Your task to perform on an android device: empty trash in the gmail app Image 0: 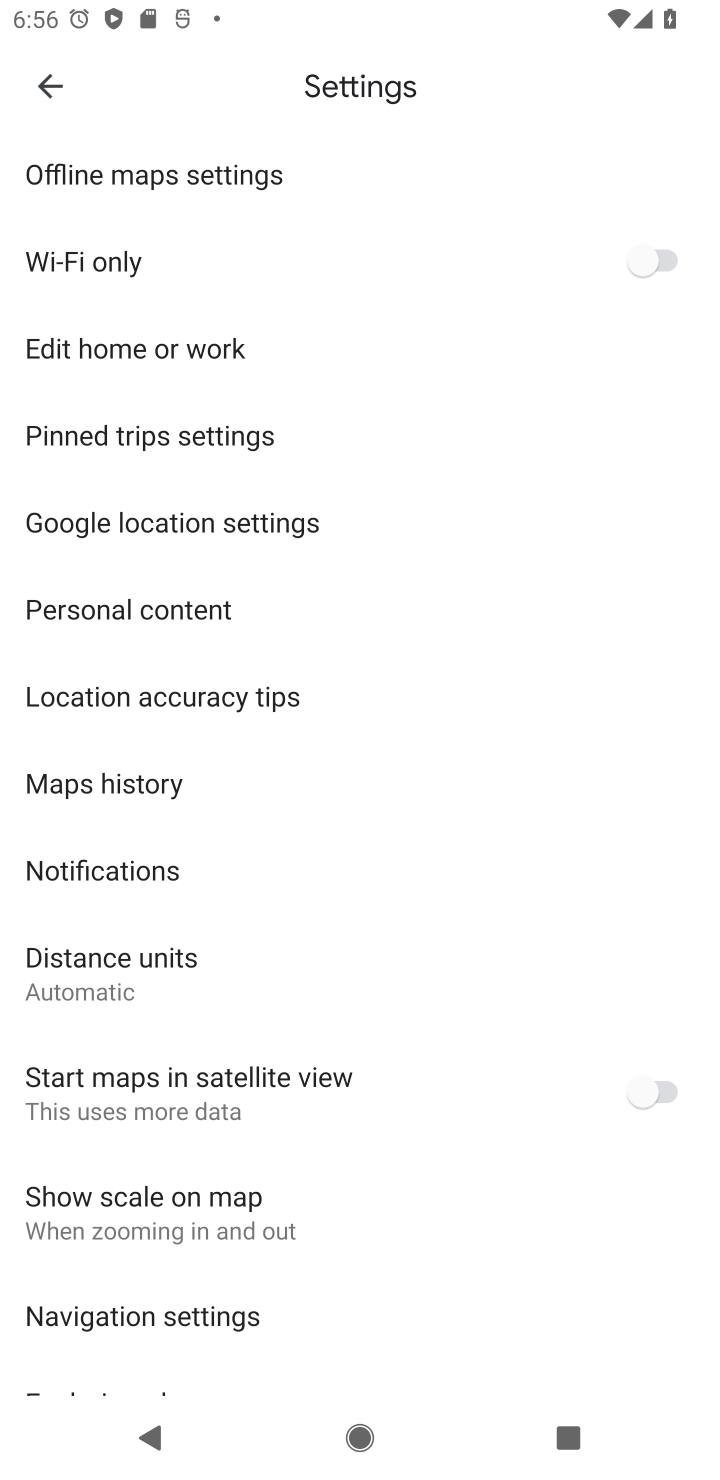
Step 0: press home button
Your task to perform on an android device: empty trash in the gmail app Image 1: 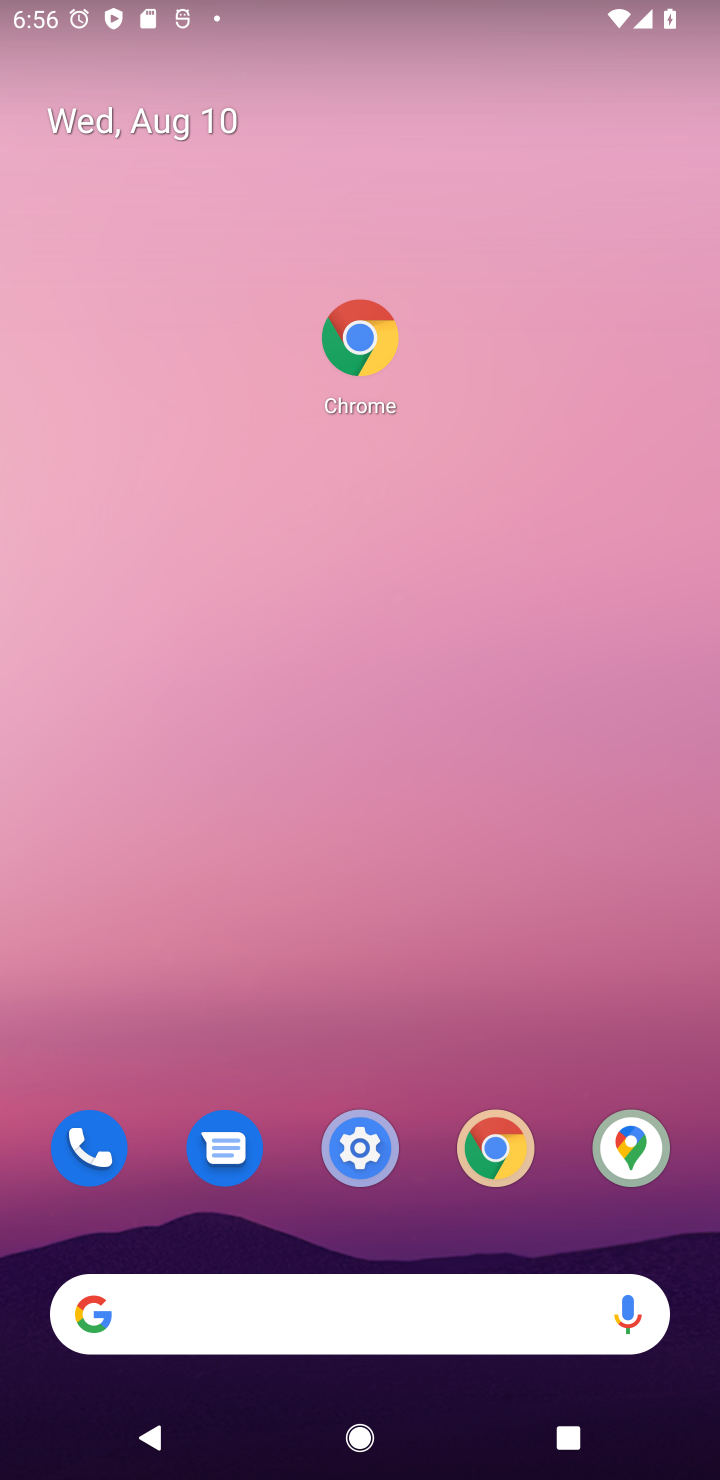
Step 1: drag from (287, 1206) to (395, 271)
Your task to perform on an android device: empty trash in the gmail app Image 2: 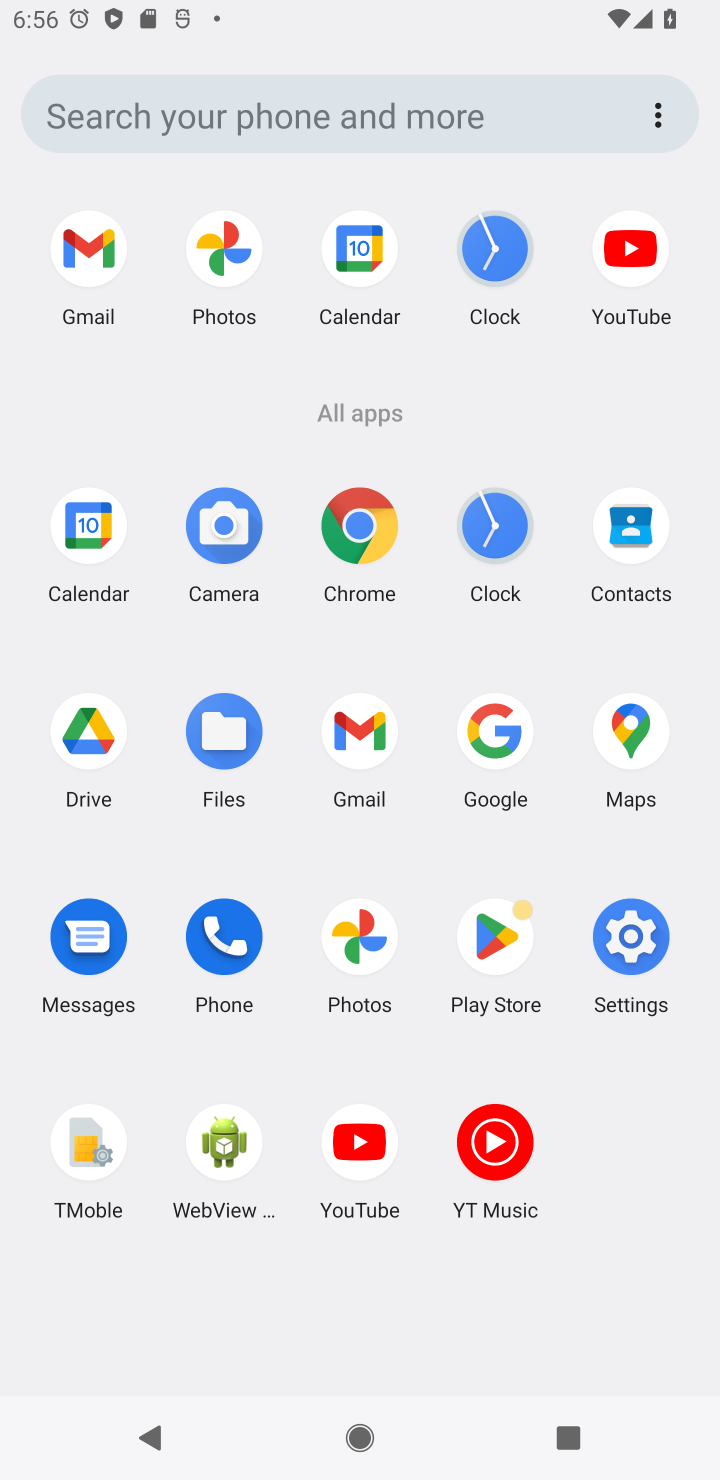
Step 2: click (94, 261)
Your task to perform on an android device: empty trash in the gmail app Image 3: 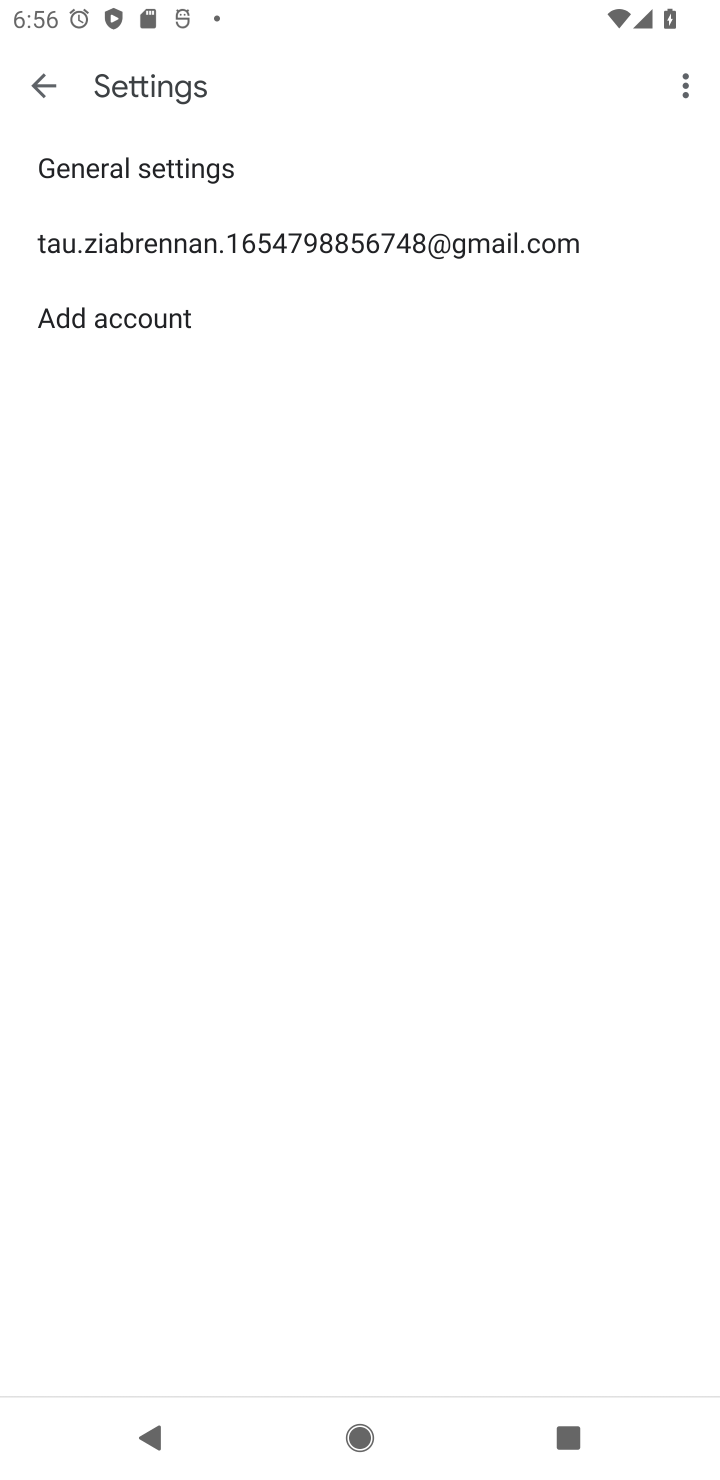
Step 3: click (40, 76)
Your task to perform on an android device: empty trash in the gmail app Image 4: 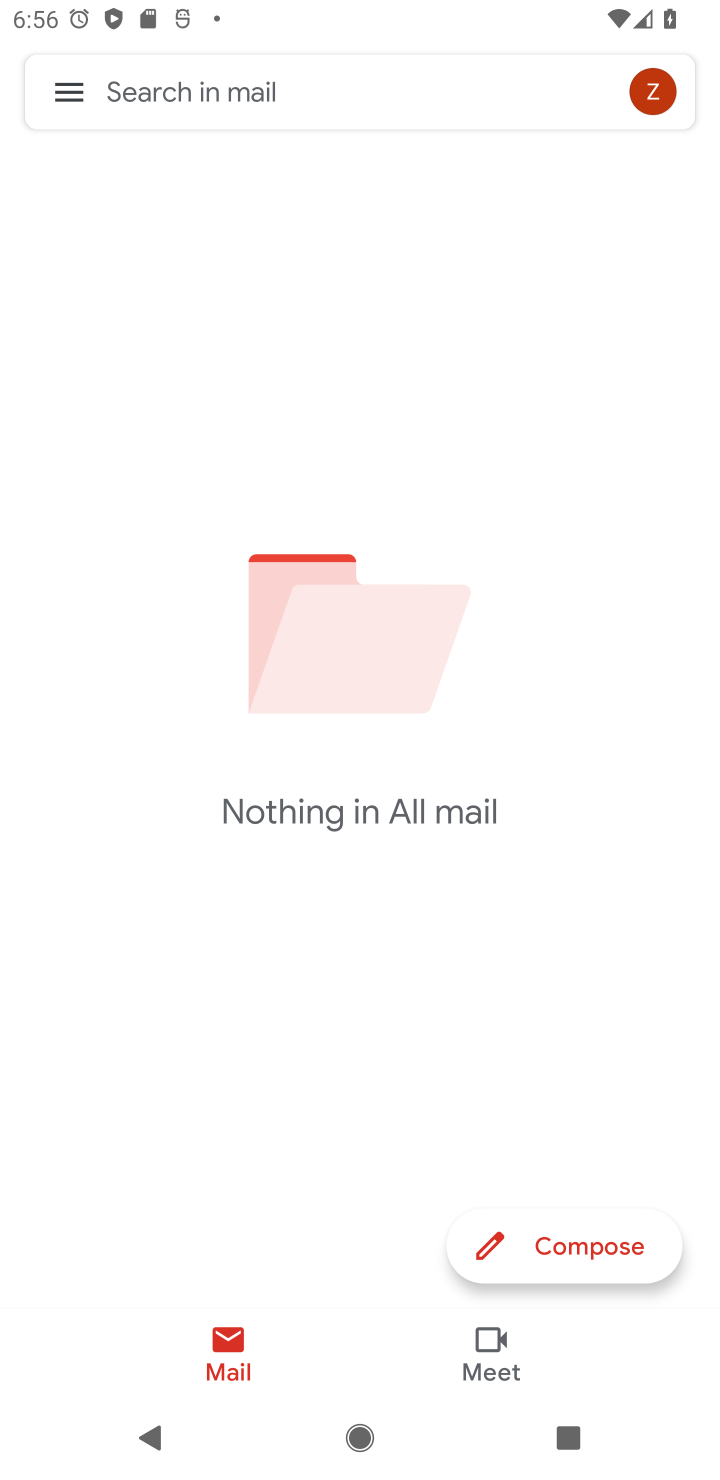
Step 4: click (40, 76)
Your task to perform on an android device: empty trash in the gmail app Image 5: 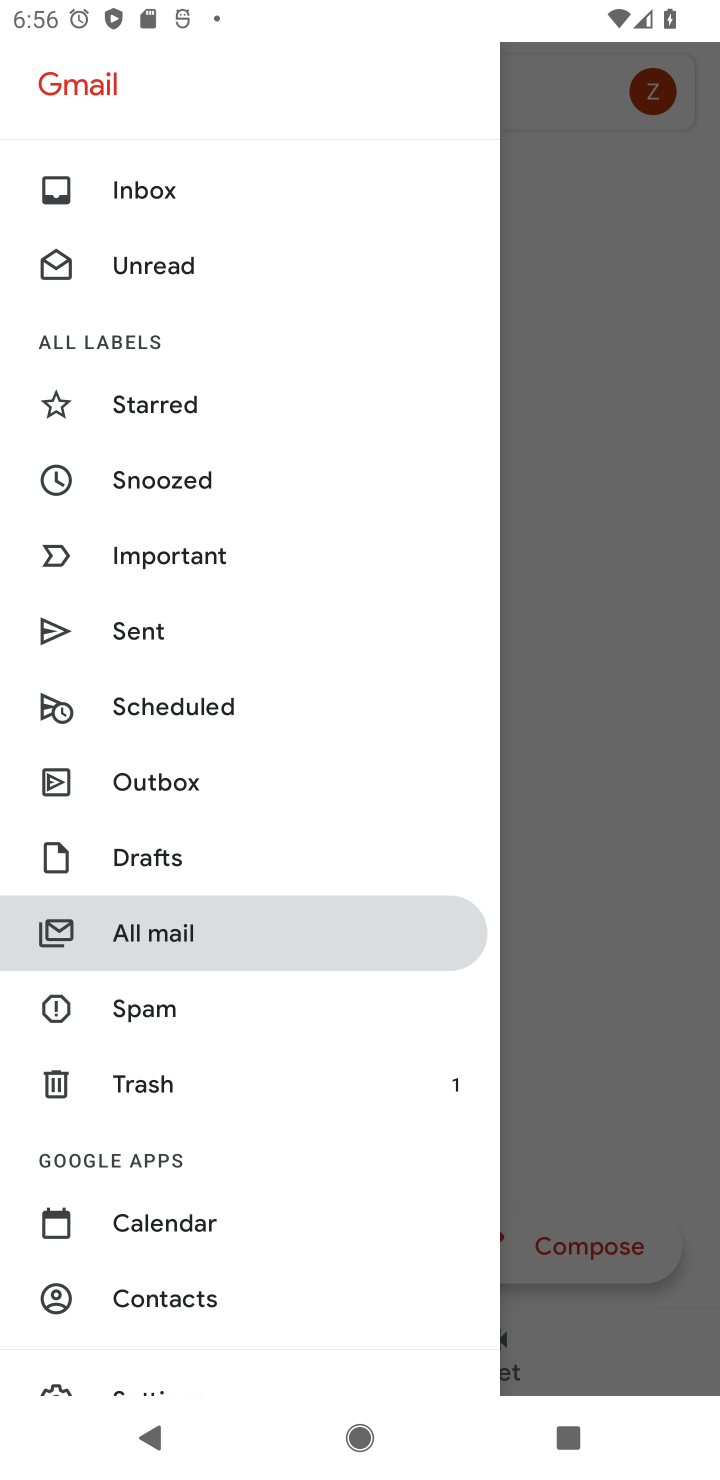
Step 5: click (216, 1085)
Your task to perform on an android device: empty trash in the gmail app Image 6: 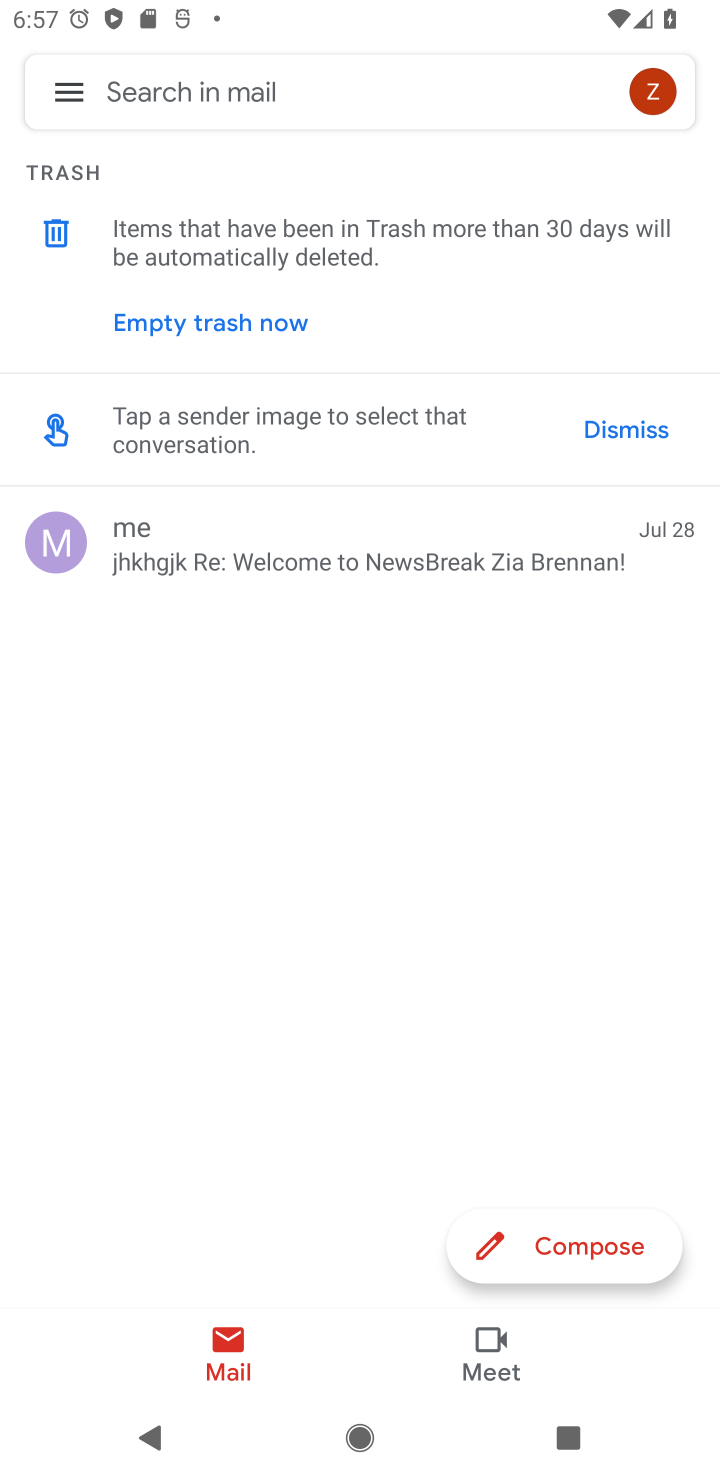
Step 6: click (224, 307)
Your task to perform on an android device: empty trash in the gmail app Image 7: 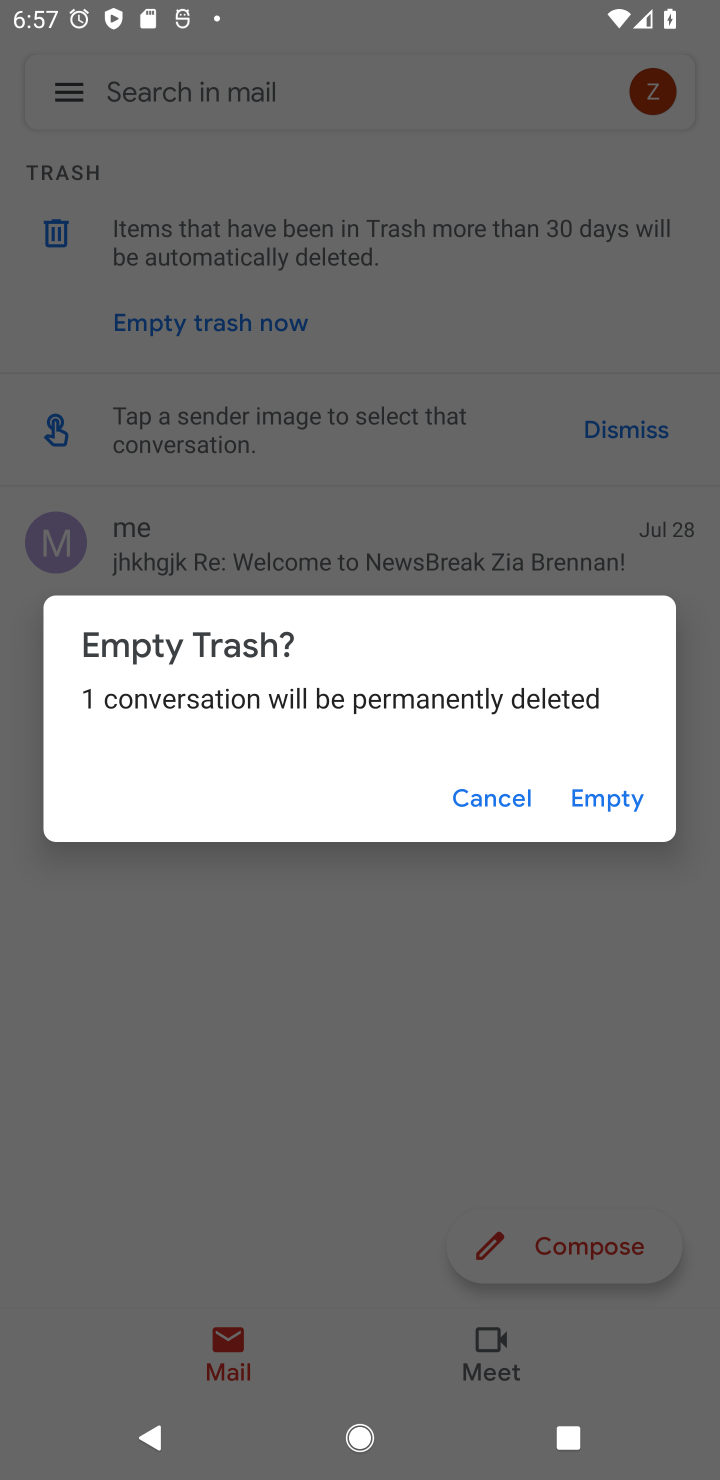
Step 7: click (631, 792)
Your task to perform on an android device: empty trash in the gmail app Image 8: 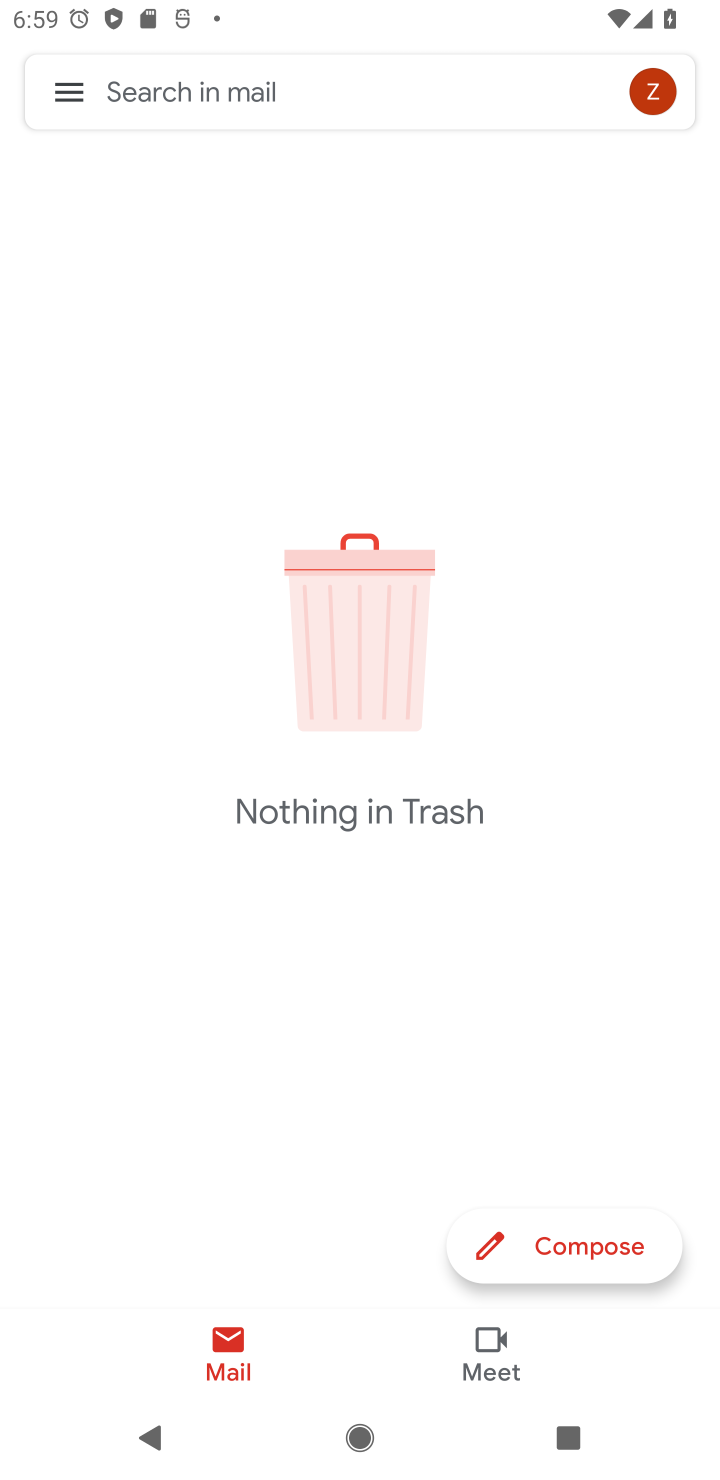
Step 8: task complete